Your task to perform on an android device: Open accessibility settings Image 0: 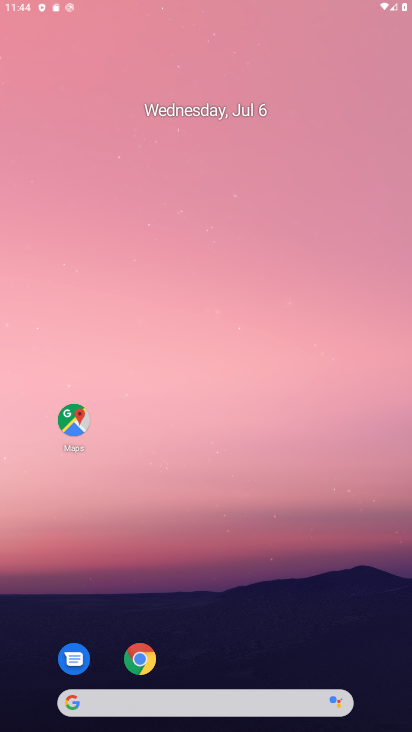
Step 0: click (108, 46)
Your task to perform on an android device: Open accessibility settings Image 1: 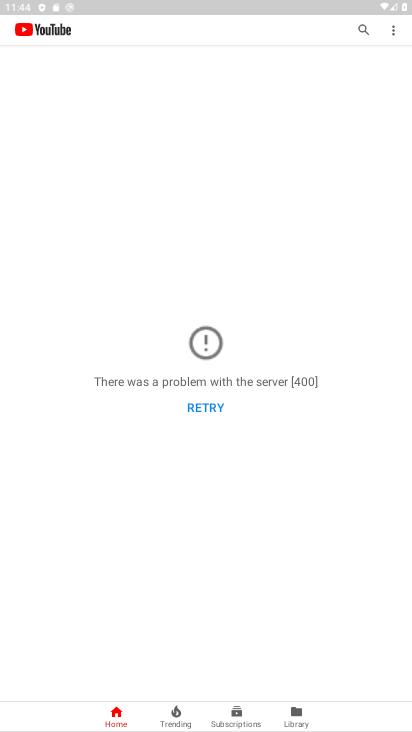
Step 1: press back button
Your task to perform on an android device: Open accessibility settings Image 2: 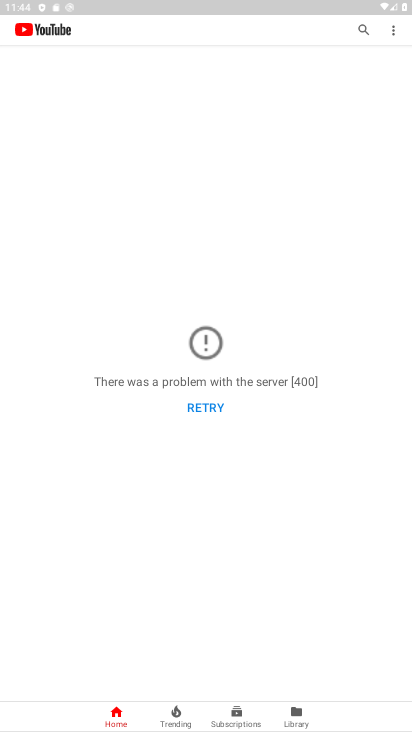
Step 2: press back button
Your task to perform on an android device: Open accessibility settings Image 3: 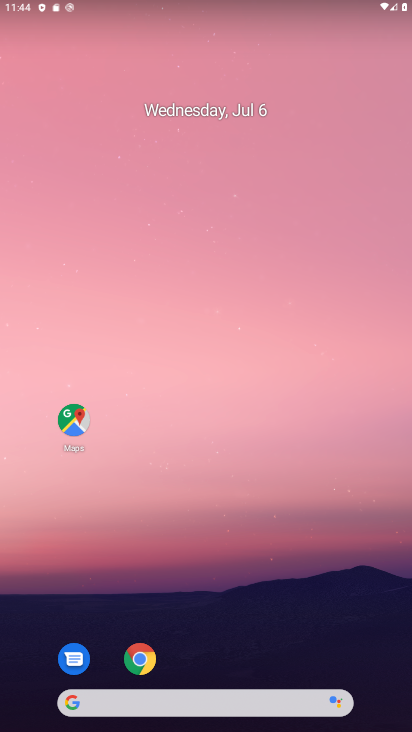
Step 3: click (90, 72)
Your task to perform on an android device: Open accessibility settings Image 4: 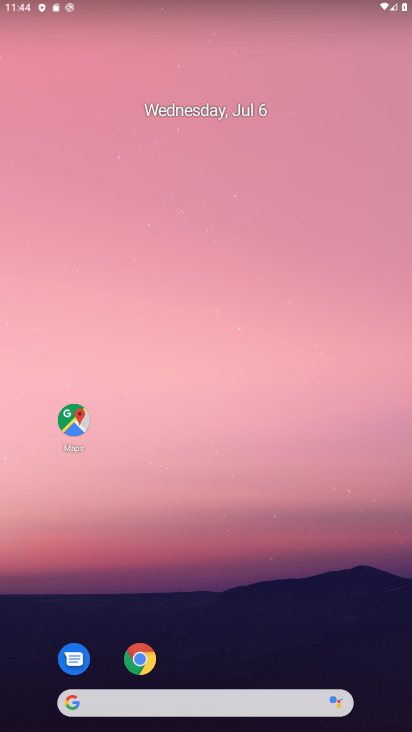
Step 4: drag from (267, 701) to (124, 93)
Your task to perform on an android device: Open accessibility settings Image 5: 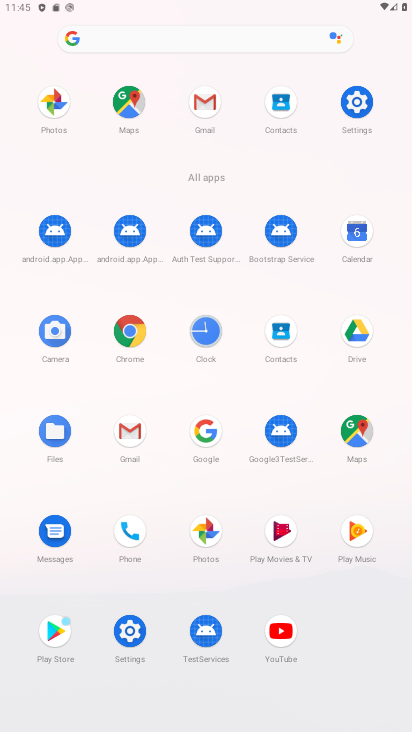
Step 5: click (348, 98)
Your task to perform on an android device: Open accessibility settings Image 6: 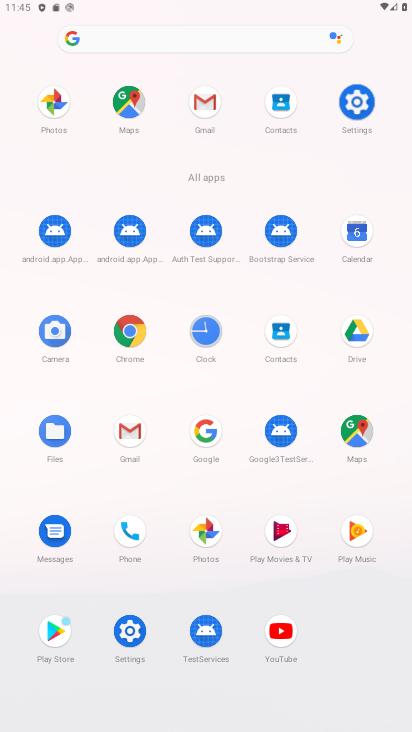
Step 6: click (348, 97)
Your task to perform on an android device: Open accessibility settings Image 7: 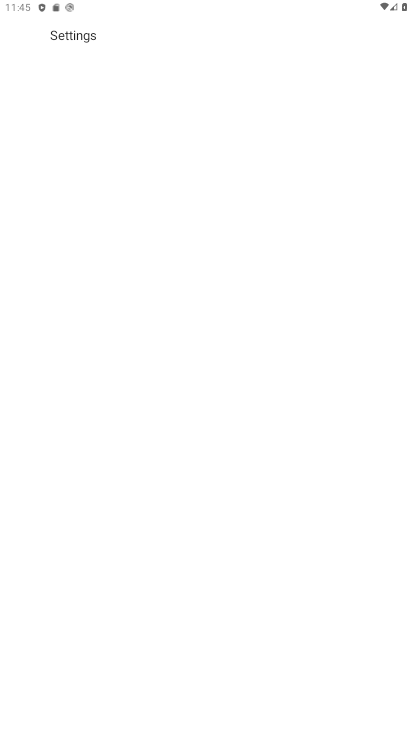
Step 7: click (356, 95)
Your task to perform on an android device: Open accessibility settings Image 8: 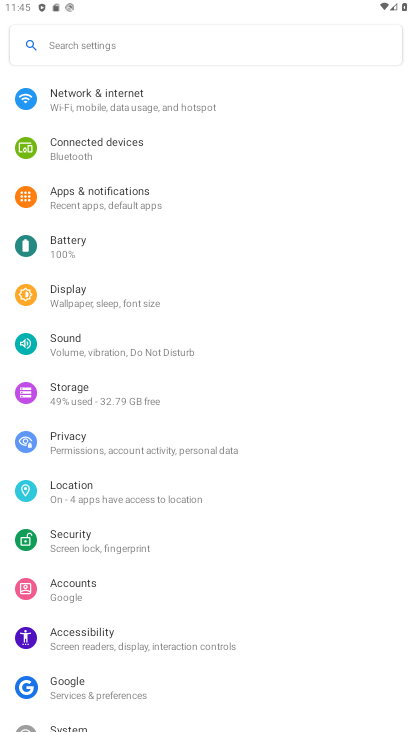
Step 8: drag from (131, 573) to (132, 136)
Your task to perform on an android device: Open accessibility settings Image 9: 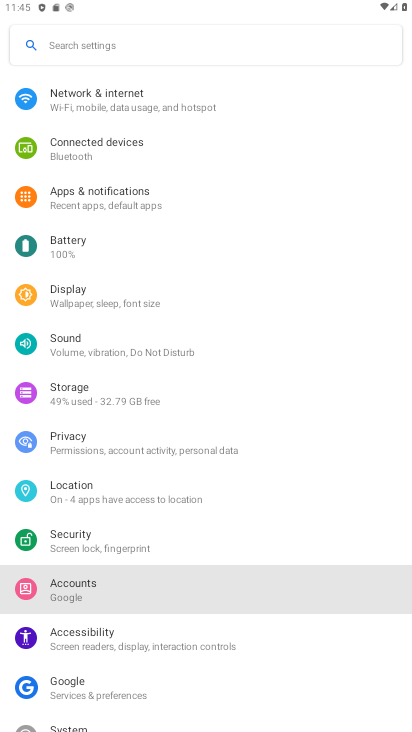
Step 9: drag from (140, 454) to (141, 132)
Your task to perform on an android device: Open accessibility settings Image 10: 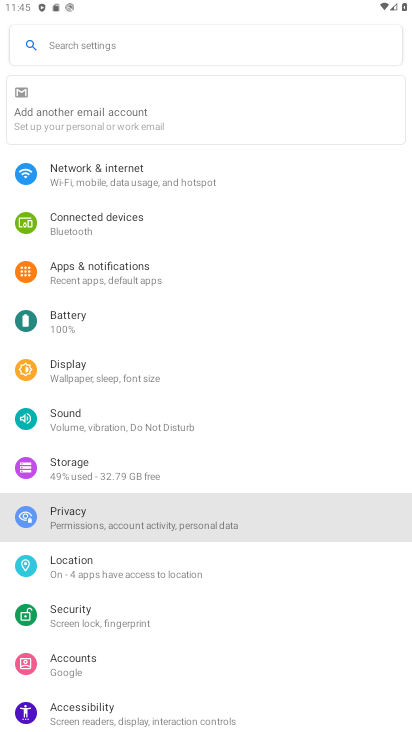
Step 10: drag from (160, 512) to (214, 262)
Your task to perform on an android device: Open accessibility settings Image 11: 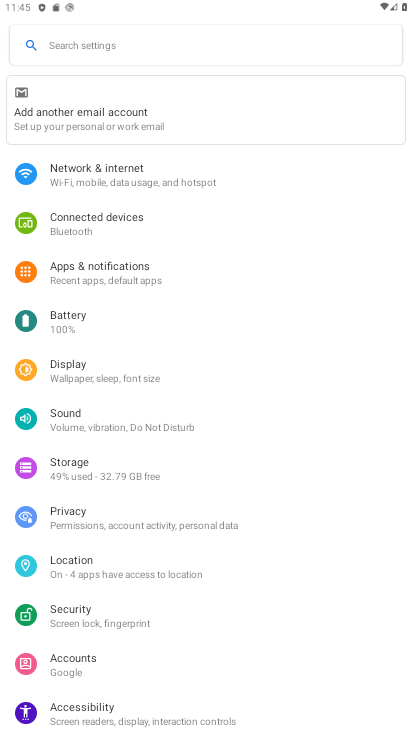
Step 11: click (70, 713)
Your task to perform on an android device: Open accessibility settings Image 12: 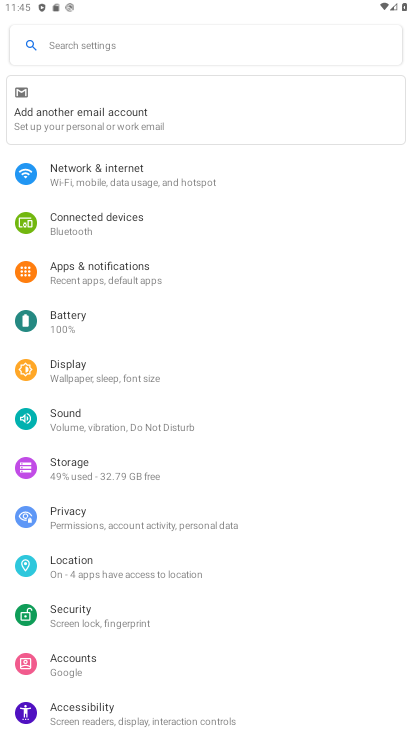
Step 12: click (69, 713)
Your task to perform on an android device: Open accessibility settings Image 13: 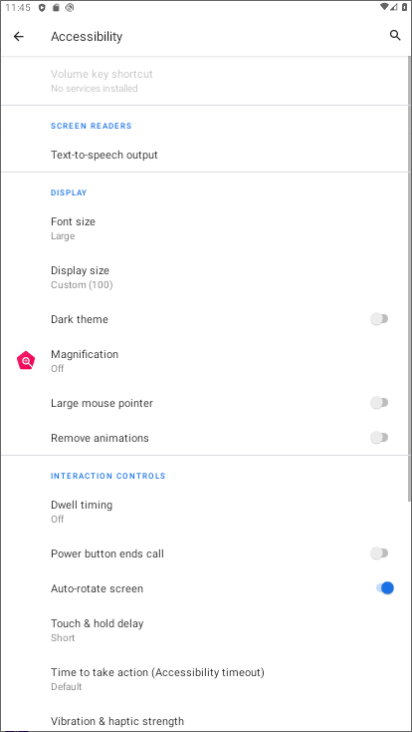
Step 13: click (83, 709)
Your task to perform on an android device: Open accessibility settings Image 14: 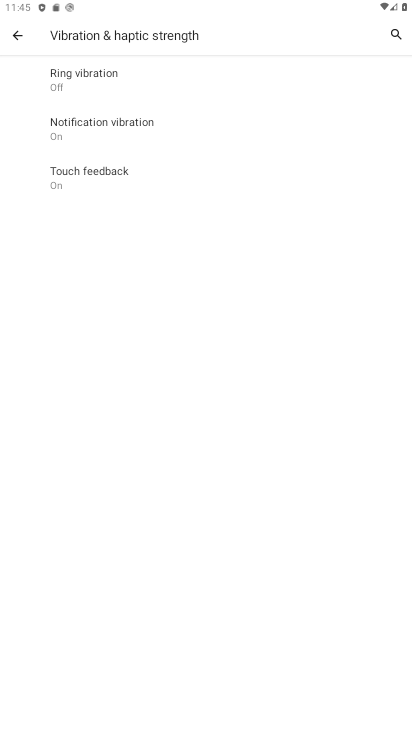
Step 14: click (24, 36)
Your task to perform on an android device: Open accessibility settings Image 15: 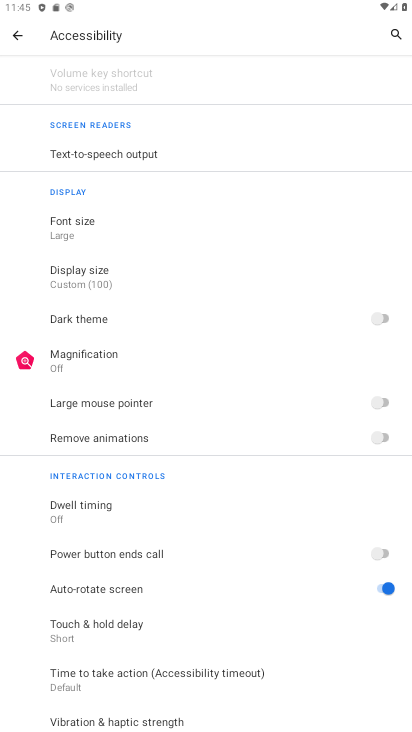
Step 15: task complete